Your task to perform on an android device: Open Google Maps Image 0: 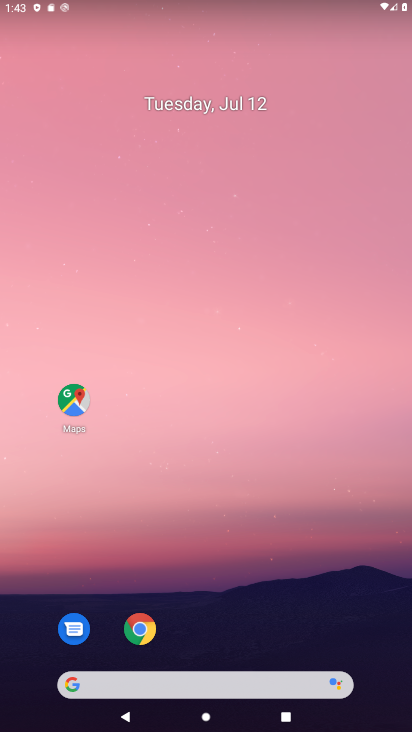
Step 0: click (66, 396)
Your task to perform on an android device: Open Google Maps Image 1: 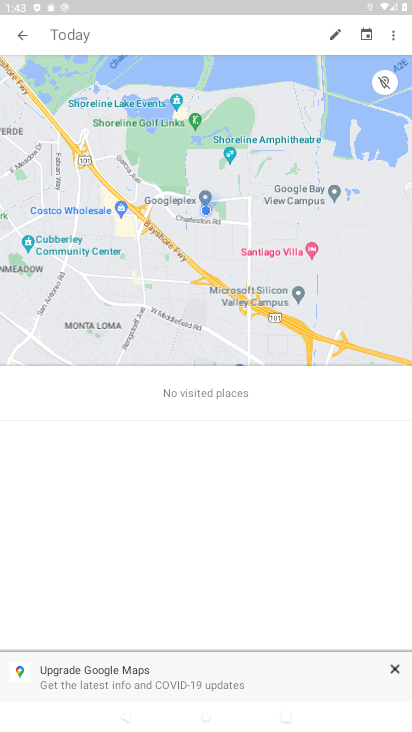
Step 1: task complete